Your task to perform on an android device: What is the recent news? Image 0: 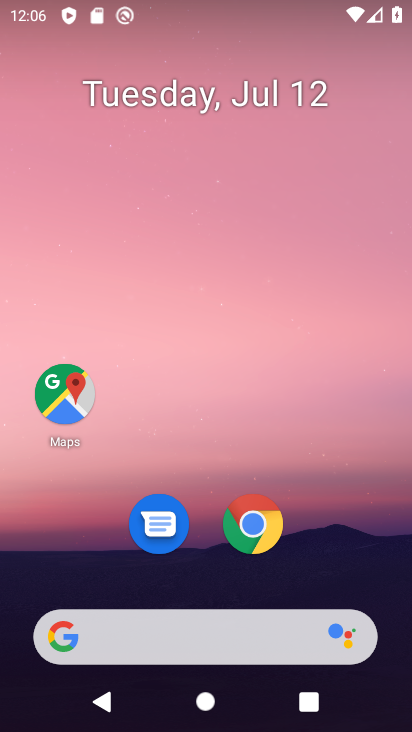
Step 0: click (199, 645)
Your task to perform on an android device: What is the recent news? Image 1: 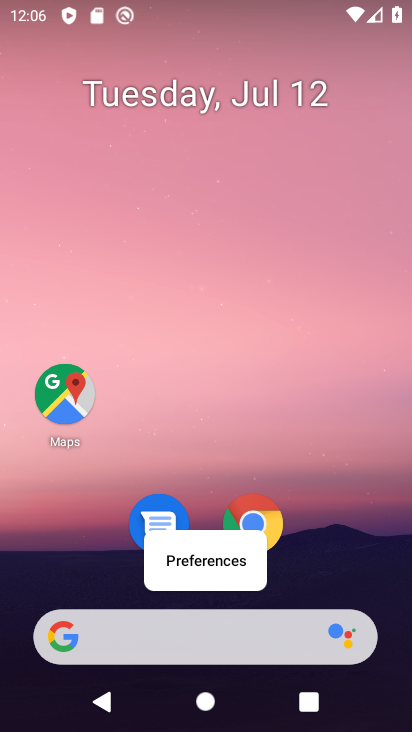
Step 1: click (199, 647)
Your task to perform on an android device: What is the recent news? Image 2: 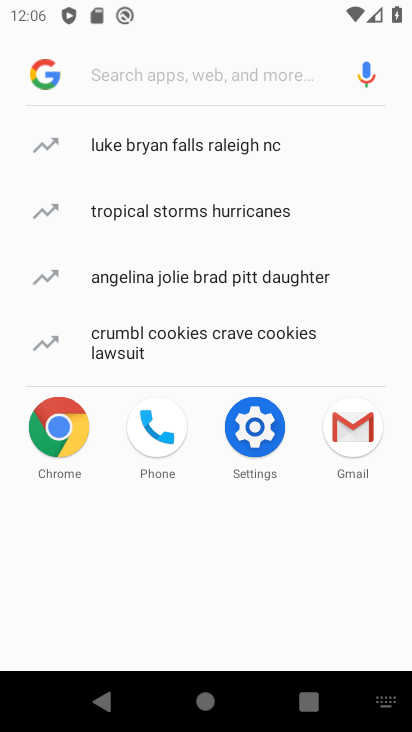
Step 2: type "recent news"
Your task to perform on an android device: What is the recent news? Image 3: 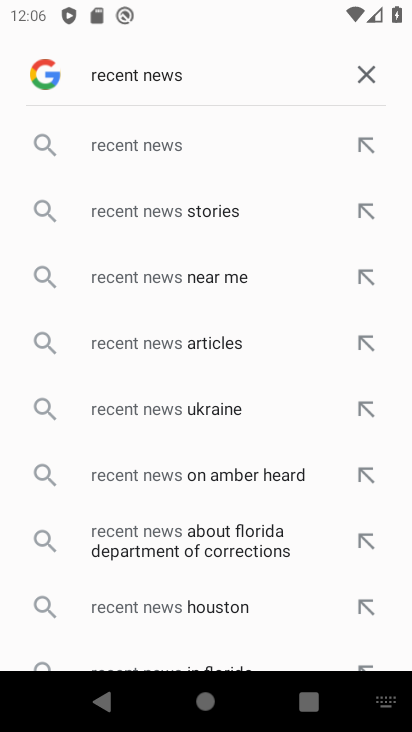
Step 3: click (148, 147)
Your task to perform on an android device: What is the recent news? Image 4: 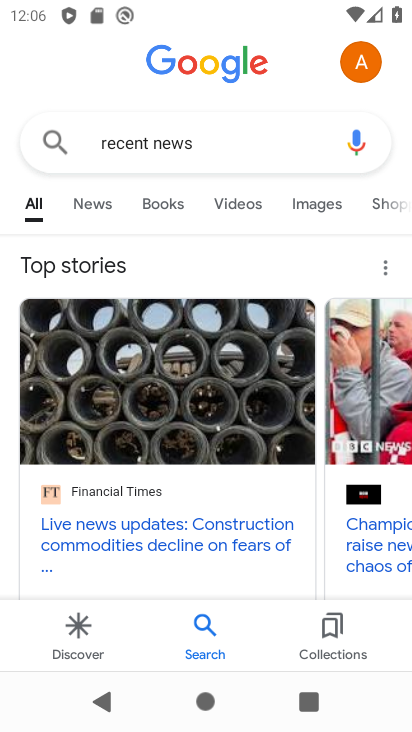
Step 4: drag from (177, 453) to (160, 271)
Your task to perform on an android device: What is the recent news? Image 5: 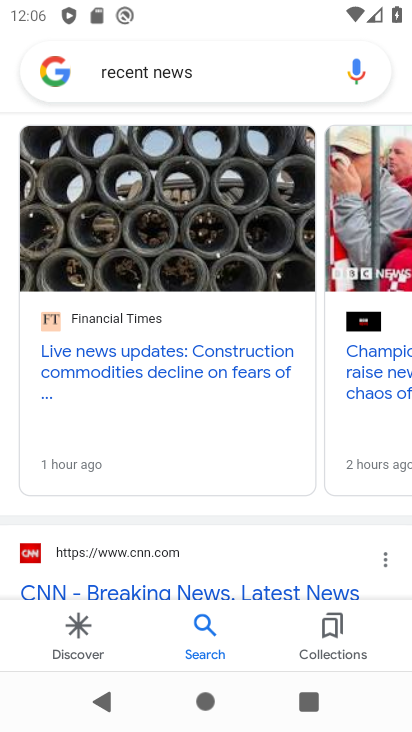
Step 5: drag from (149, 209) to (165, 400)
Your task to perform on an android device: What is the recent news? Image 6: 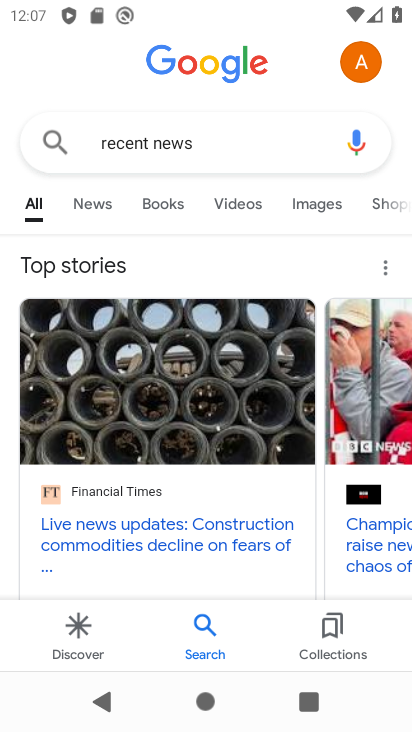
Step 6: click (98, 205)
Your task to perform on an android device: What is the recent news? Image 7: 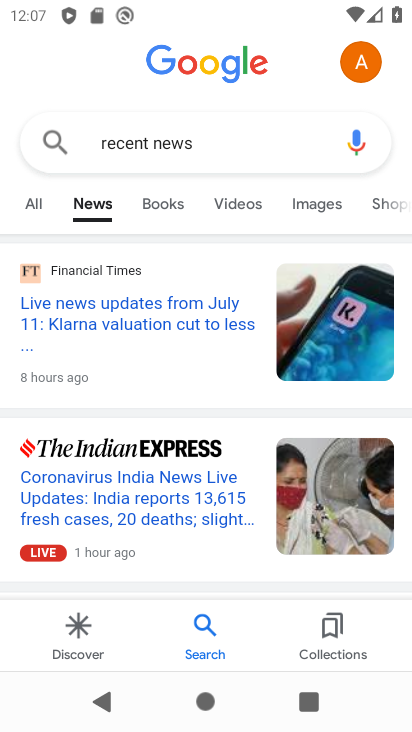
Step 7: task complete